Your task to perform on an android device: clear all cookies in the chrome app Image 0: 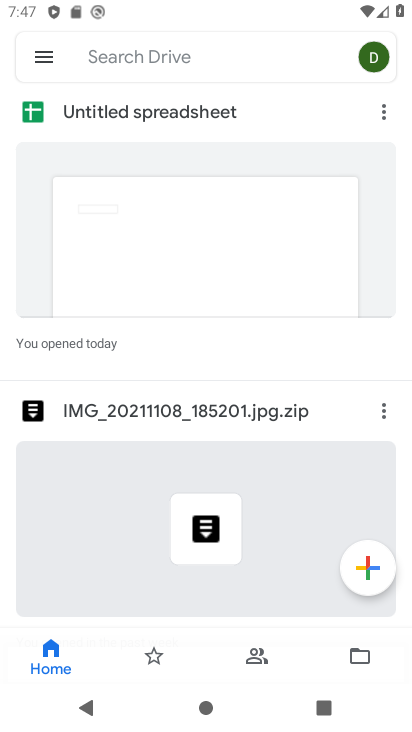
Step 0: press home button
Your task to perform on an android device: clear all cookies in the chrome app Image 1: 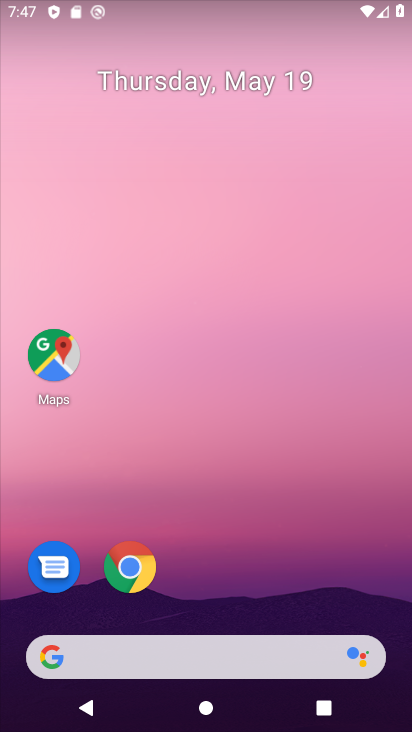
Step 1: click (127, 575)
Your task to perform on an android device: clear all cookies in the chrome app Image 2: 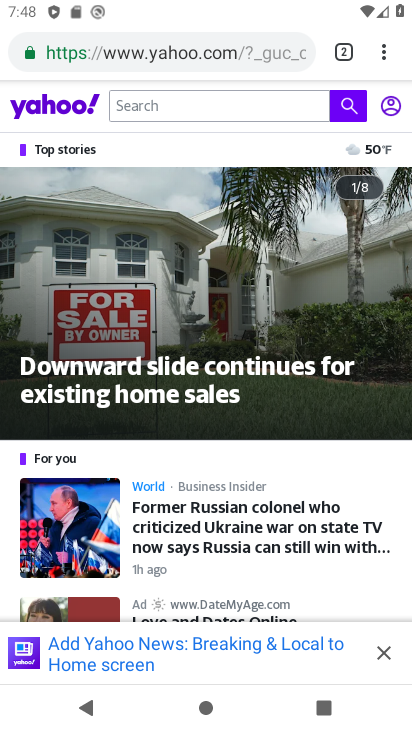
Step 2: click (389, 51)
Your task to perform on an android device: clear all cookies in the chrome app Image 3: 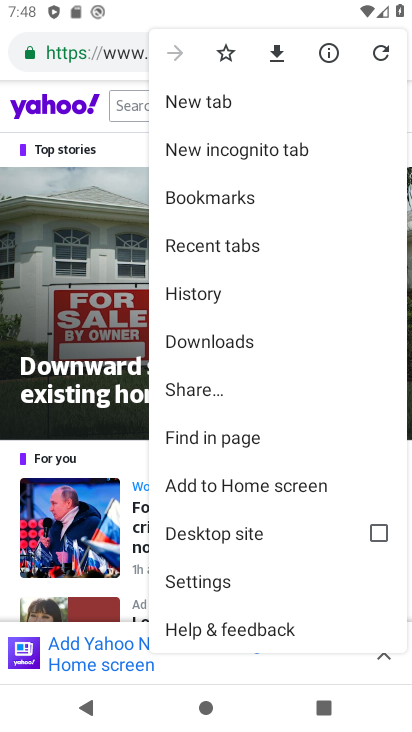
Step 3: drag from (198, 593) to (225, 119)
Your task to perform on an android device: clear all cookies in the chrome app Image 4: 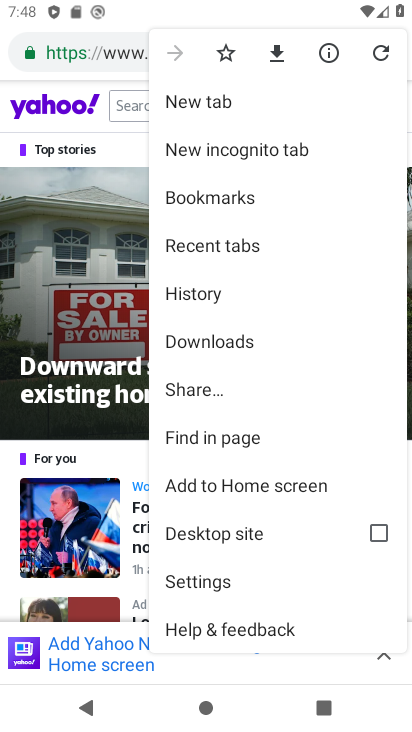
Step 4: drag from (269, 581) to (311, 192)
Your task to perform on an android device: clear all cookies in the chrome app Image 5: 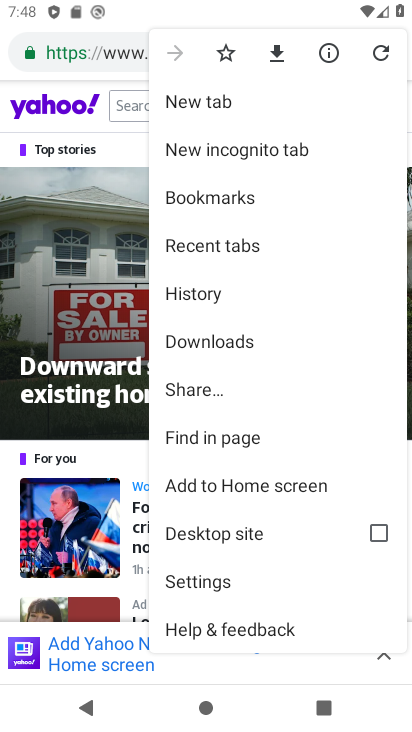
Step 5: click (193, 596)
Your task to perform on an android device: clear all cookies in the chrome app Image 6: 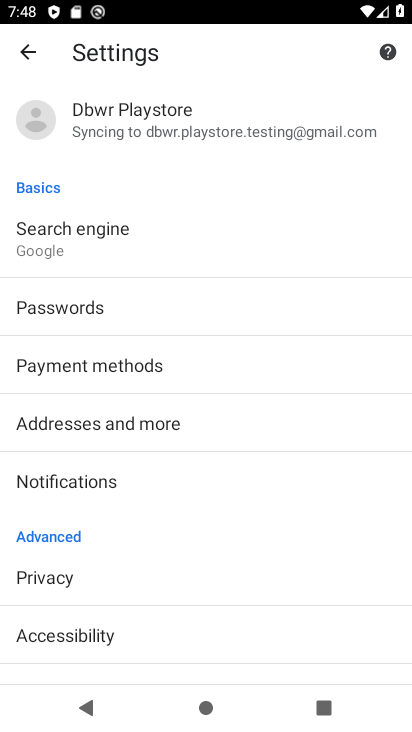
Step 6: click (43, 55)
Your task to perform on an android device: clear all cookies in the chrome app Image 7: 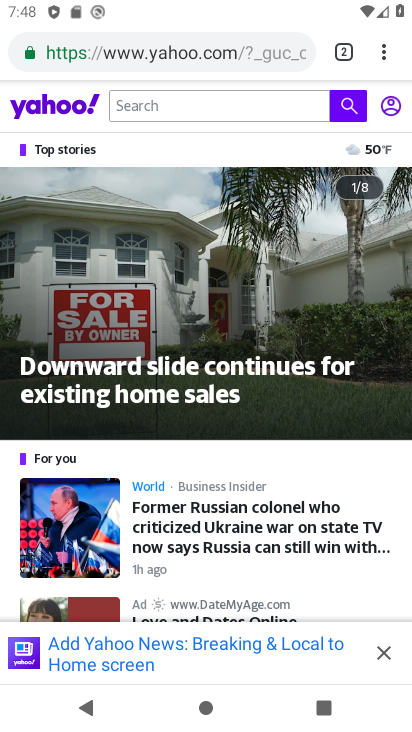
Step 7: click (381, 44)
Your task to perform on an android device: clear all cookies in the chrome app Image 8: 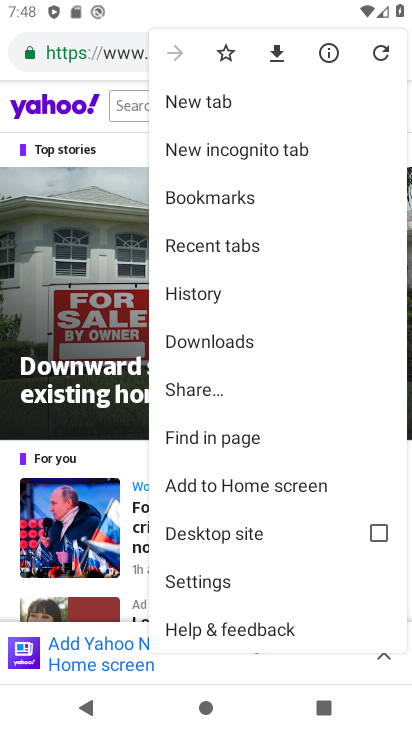
Step 8: click (215, 290)
Your task to perform on an android device: clear all cookies in the chrome app Image 9: 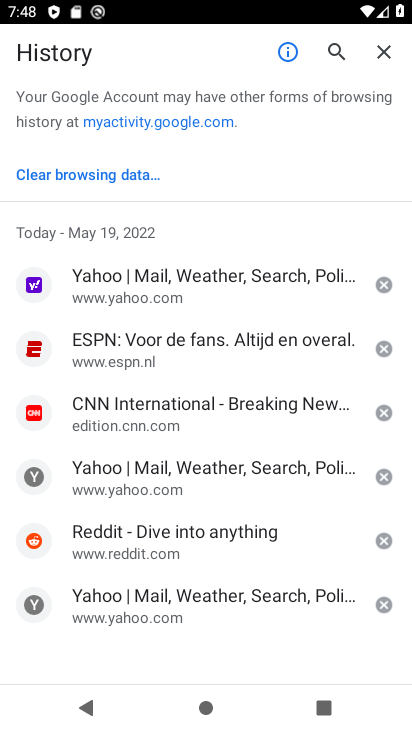
Step 9: click (134, 174)
Your task to perform on an android device: clear all cookies in the chrome app Image 10: 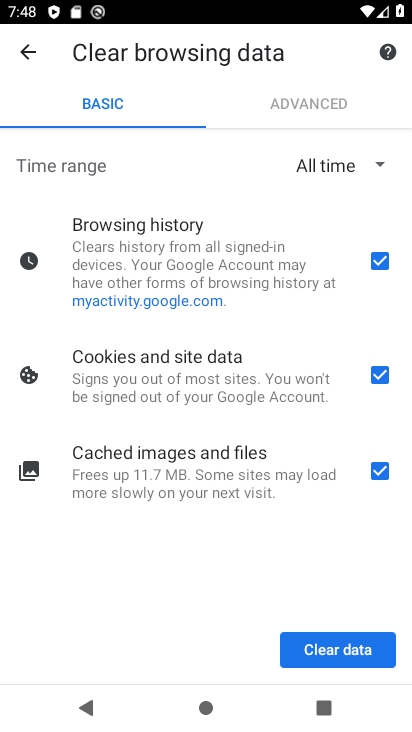
Step 10: click (381, 263)
Your task to perform on an android device: clear all cookies in the chrome app Image 11: 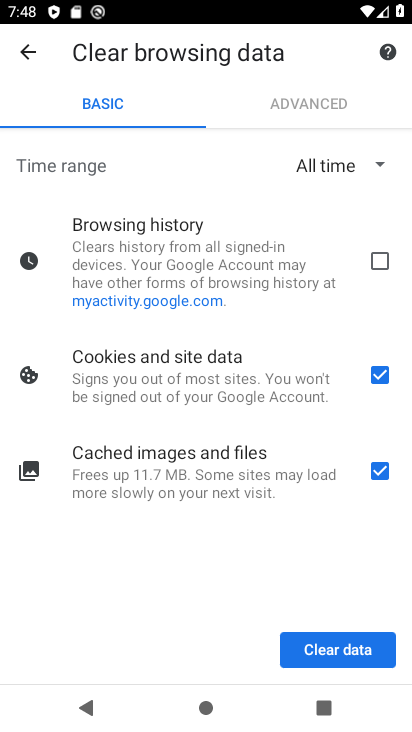
Step 11: click (377, 476)
Your task to perform on an android device: clear all cookies in the chrome app Image 12: 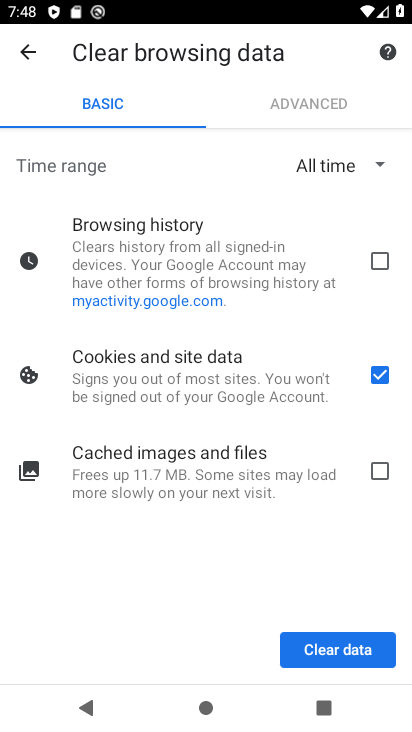
Step 12: click (323, 653)
Your task to perform on an android device: clear all cookies in the chrome app Image 13: 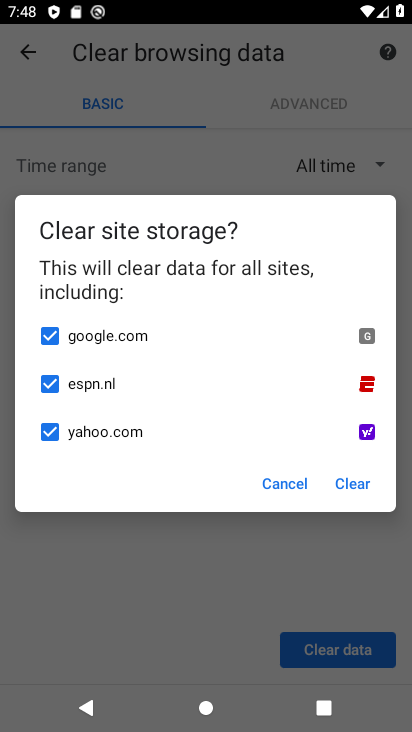
Step 13: click (368, 491)
Your task to perform on an android device: clear all cookies in the chrome app Image 14: 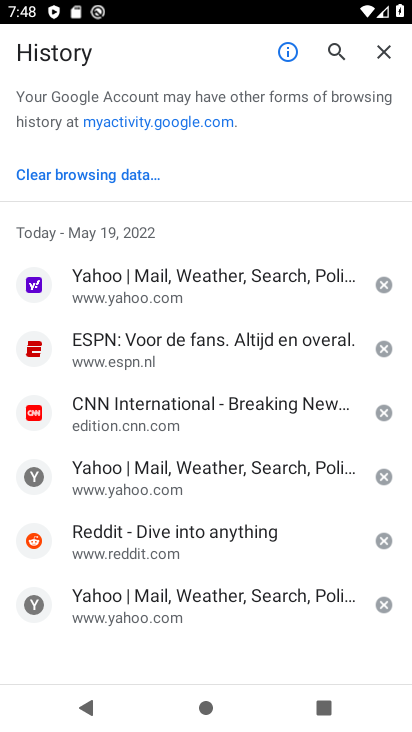
Step 14: task complete